Your task to perform on an android device: What is the recent news? Image 0: 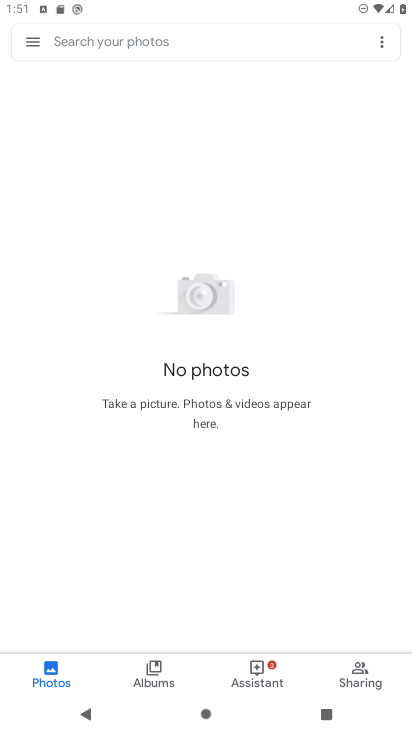
Step 0: press home button
Your task to perform on an android device: What is the recent news? Image 1: 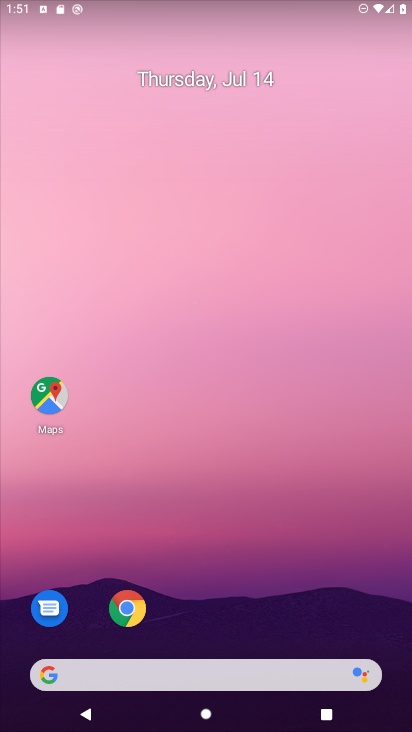
Step 1: task complete